Your task to perform on an android device: empty trash in the gmail app Image 0: 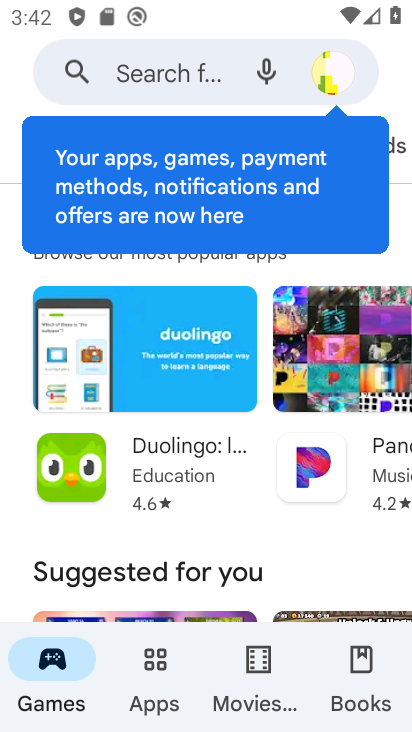
Step 0: press home button
Your task to perform on an android device: empty trash in the gmail app Image 1: 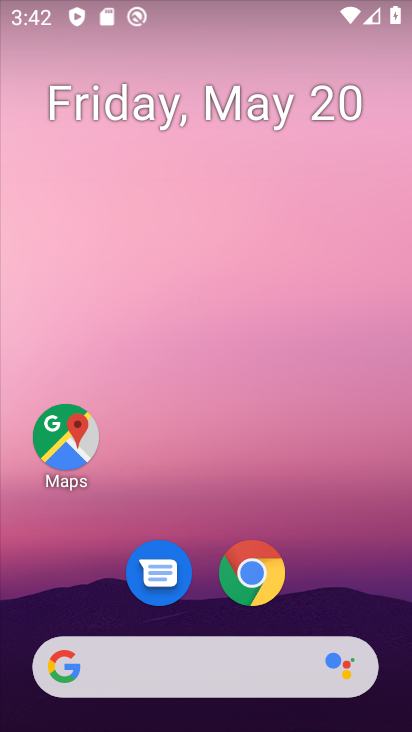
Step 1: drag from (359, 587) to (362, 159)
Your task to perform on an android device: empty trash in the gmail app Image 2: 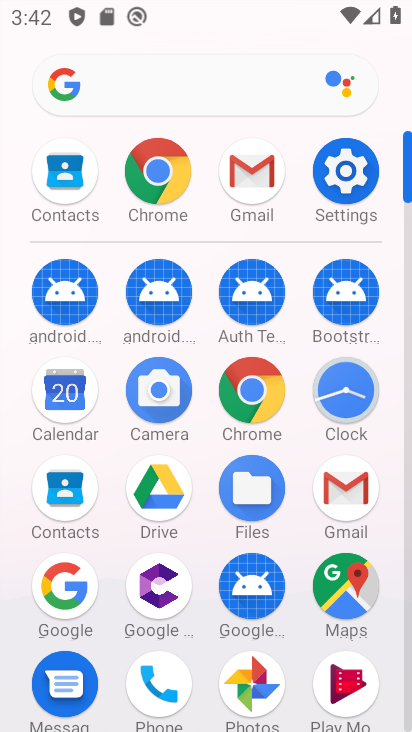
Step 2: click (243, 159)
Your task to perform on an android device: empty trash in the gmail app Image 3: 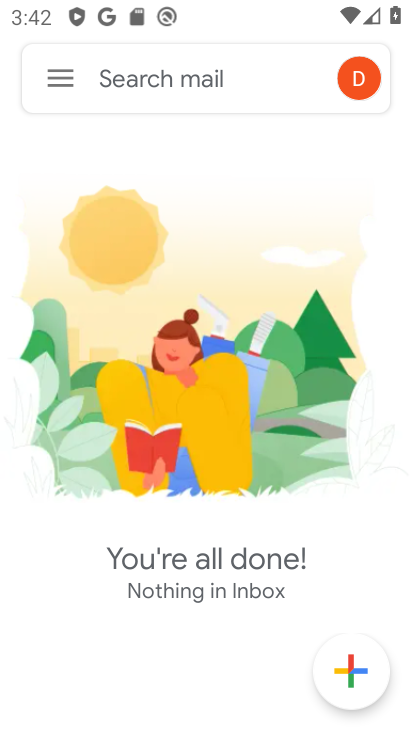
Step 3: click (50, 75)
Your task to perform on an android device: empty trash in the gmail app Image 4: 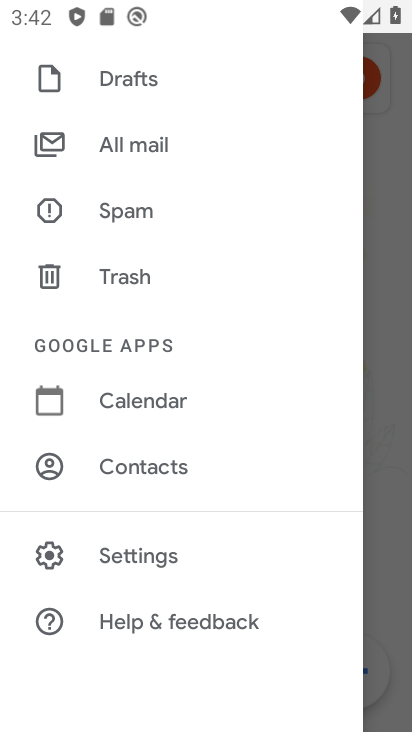
Step 4: click (148, 264)
Your task to perform on an android device: empty trash in the gmail app Image 5: 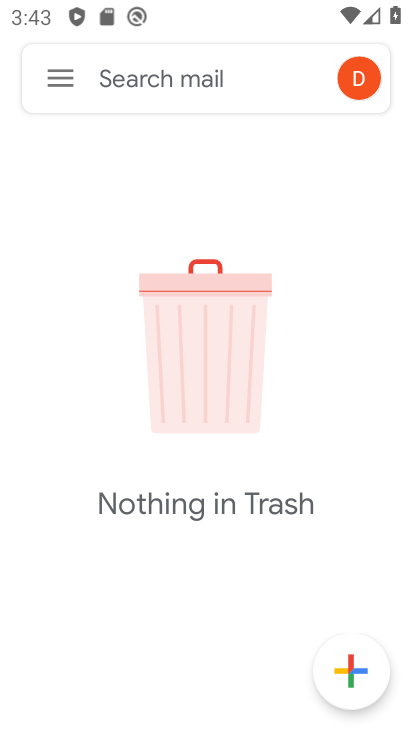
Step 5: task complete